Your task to perform on an android device: toggle wifi Image 0: 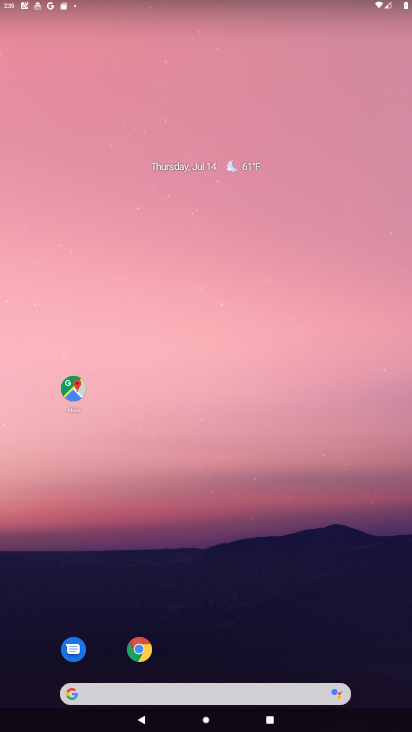
Step 0: drag from (269, 705) to (191, 4)
Your task to perform on an android device: toggle wifi Image 1: 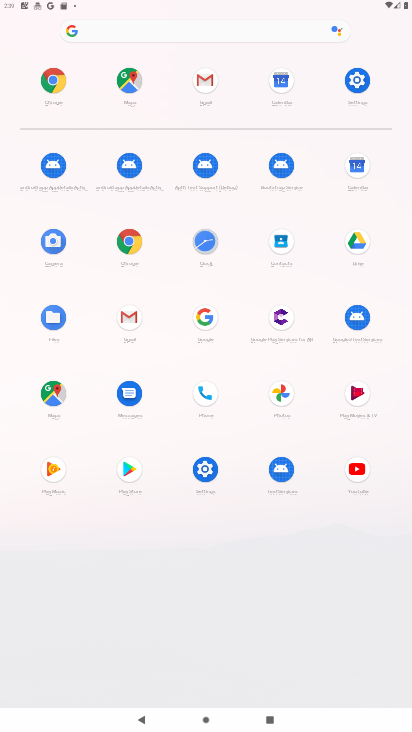
Step 1: click (359, 74)
Your task to perform on an android device: toggle wifi Image 2: 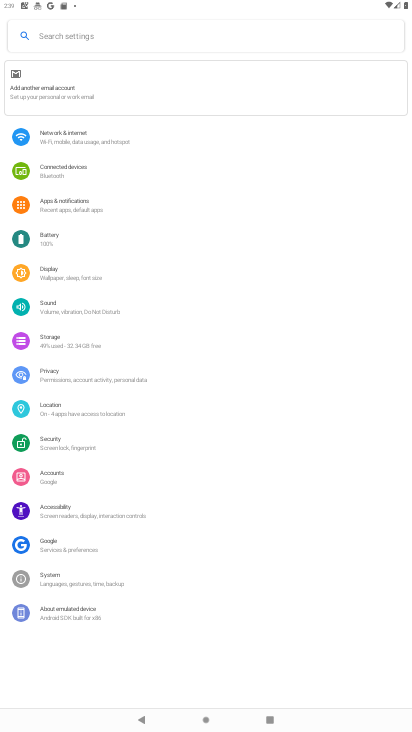
Step 2: click (121, 136)
Your task to perform on an android device: toggle wifi Image 3: 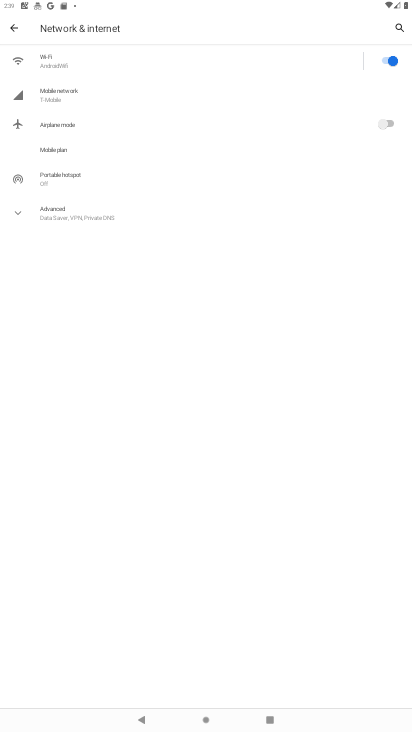
Step 3: click (395, 59)
Your task to perform on an android device: toggle wifi Image 4: 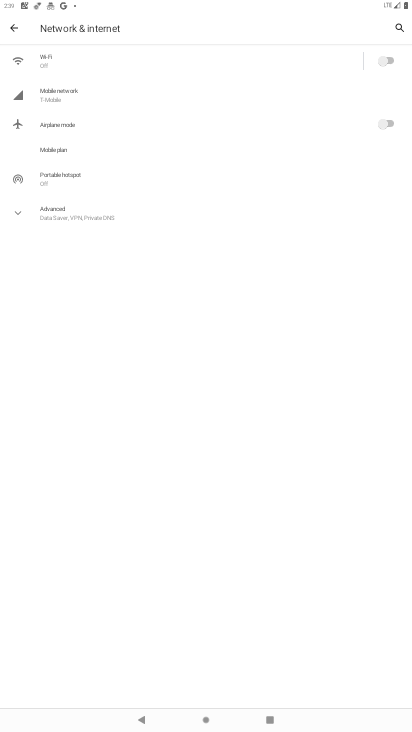
Step 4: task complete